Your task to perform on an android device: Is it going to rain tomorrow? Image 0: 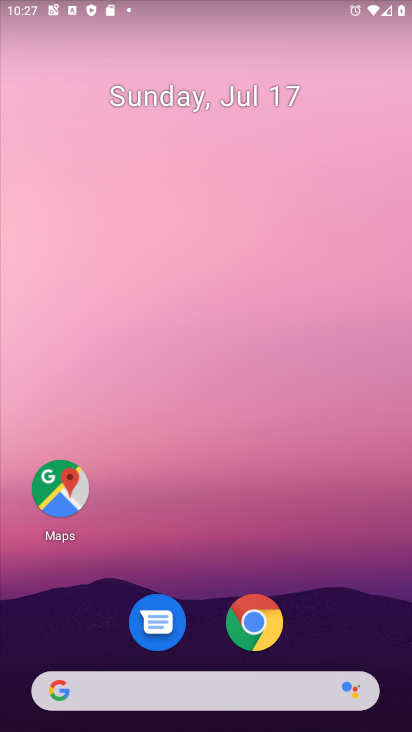
Step 0: click (141, 688)
Your task to perform on an android device: Is it going to rain tomorrow? Image 1: 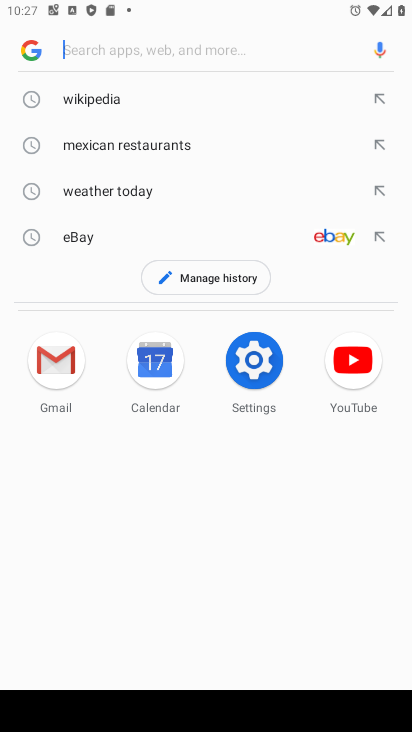
Step 1: type "Is it going to rain tomorrow?"
Your task to perform on an android device: Is it going to rain tomorrow? Image 2: 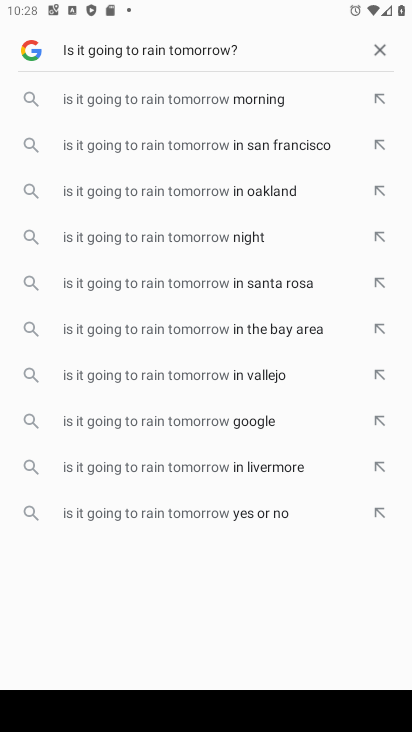
Step 2: press enter
Your task to perform on an android device: Is it going to rain tomorrow? Image 3: 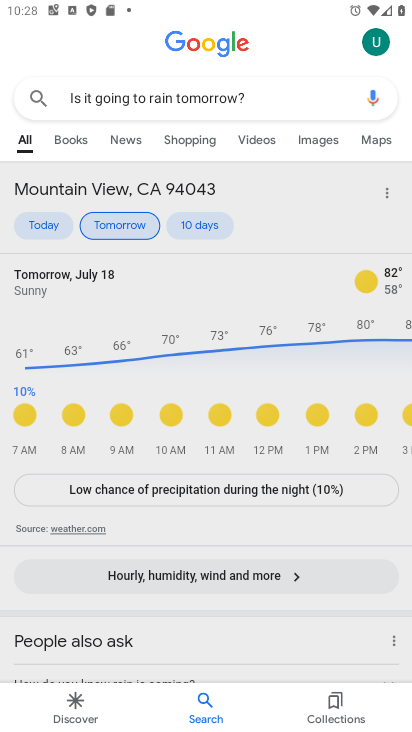
Step 3: task complete